Your task to perform on an android device: Clear all items from cart on costco.com. Search for "logitech g pro" on costco.com, select the first entry, add it to the cart, then select checkout. Image 0: 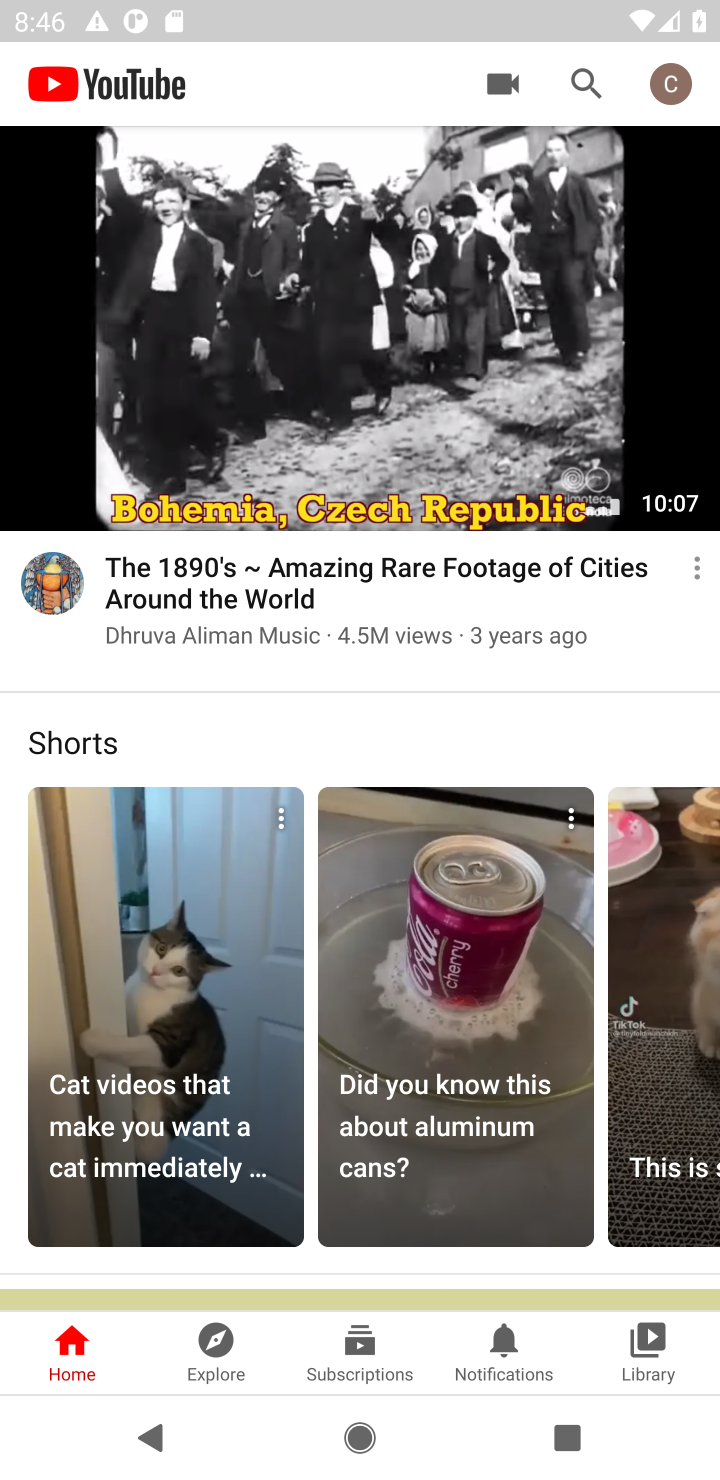
Step 0: press home button
Your task to perform on an android device: Clear all items from cart on costco.com. Search for "logitech g pro" on costco.com, select the first entry, add it to the cart, then select checkout. Image 1: 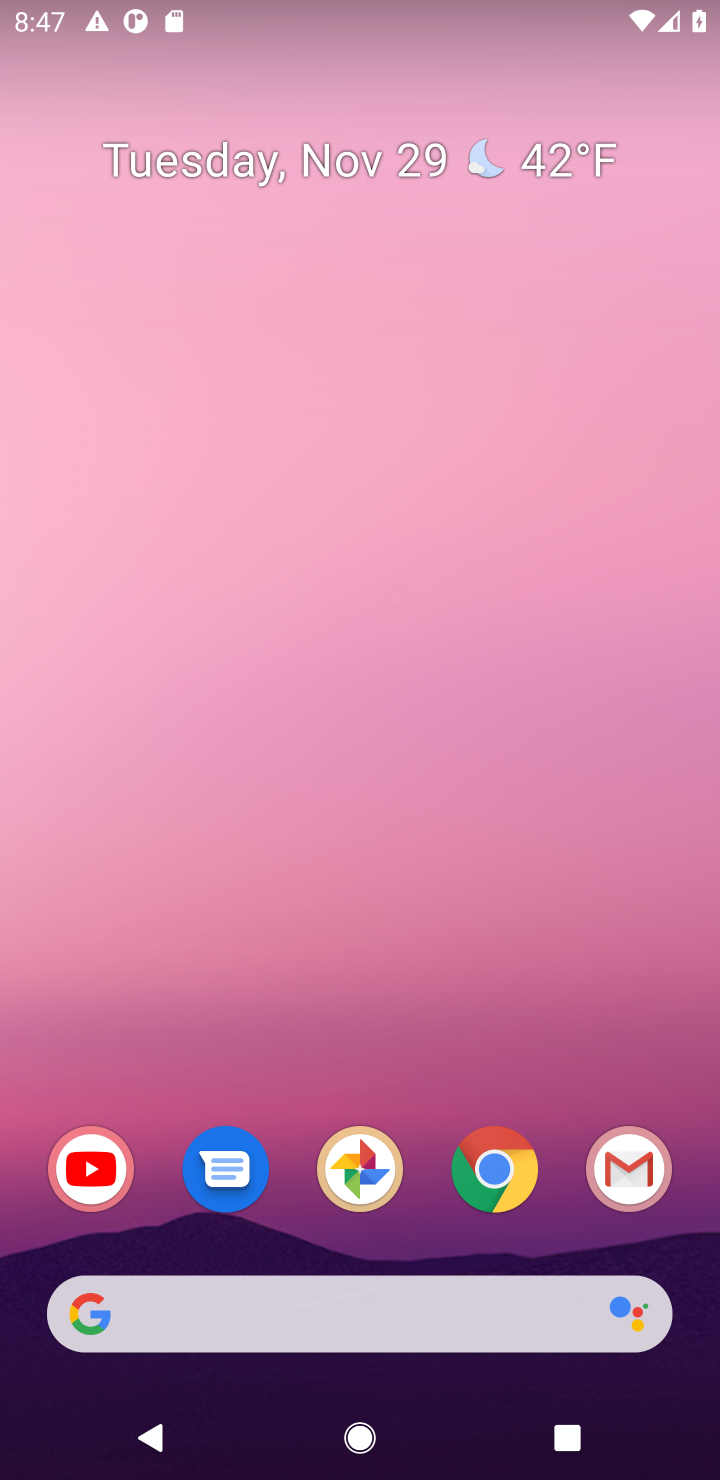
Step 1: click (378, 1329)
Your task to perform on an android device: Clear all items from cart on costco.com. Search for "logitech g pro" on costco.com, select the first entry, add it to the cart, then select checkout. Image 2: 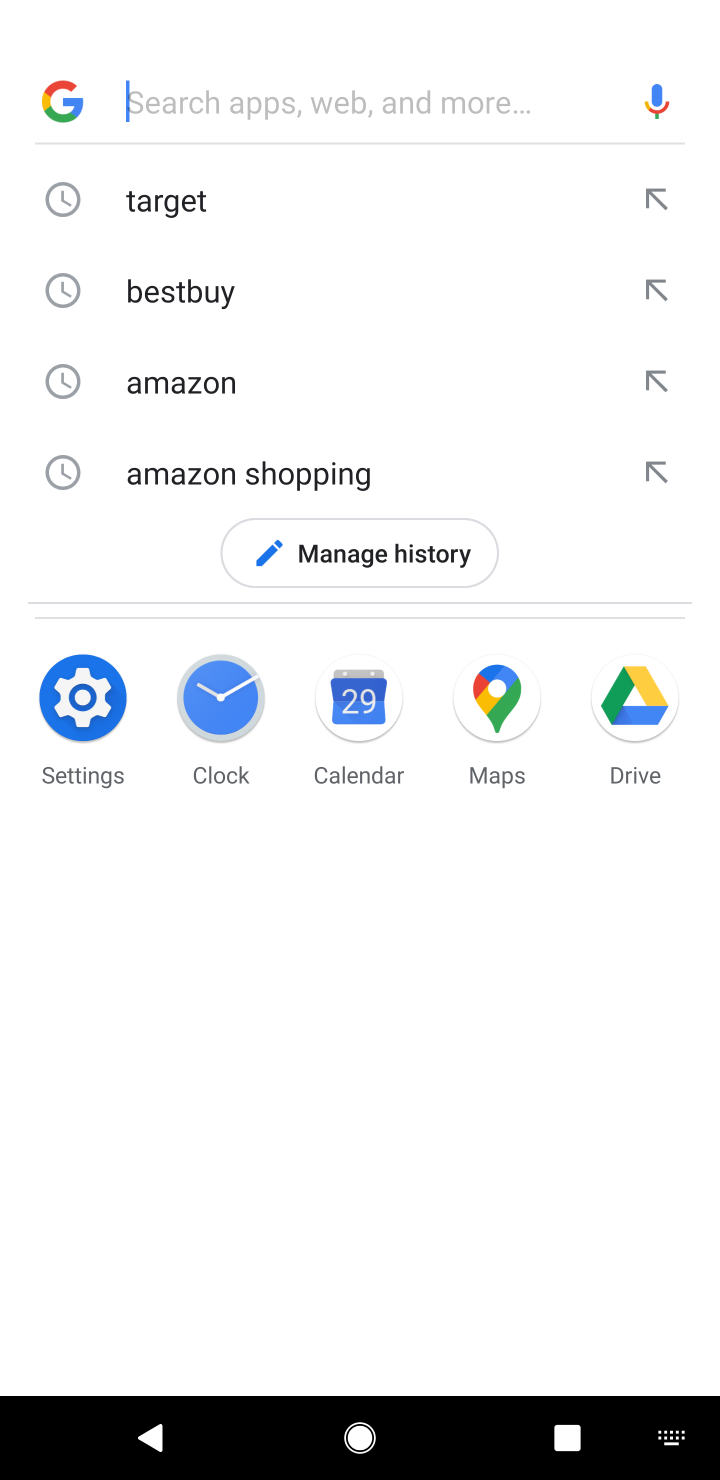
Step 2: type "costco.com"
Your task to perform on an android device: Clear all items from cart on costco.com. Search for "logitech g pro" on costco.com, select the first entry, add it to the cart, then select checkout. Image 3: 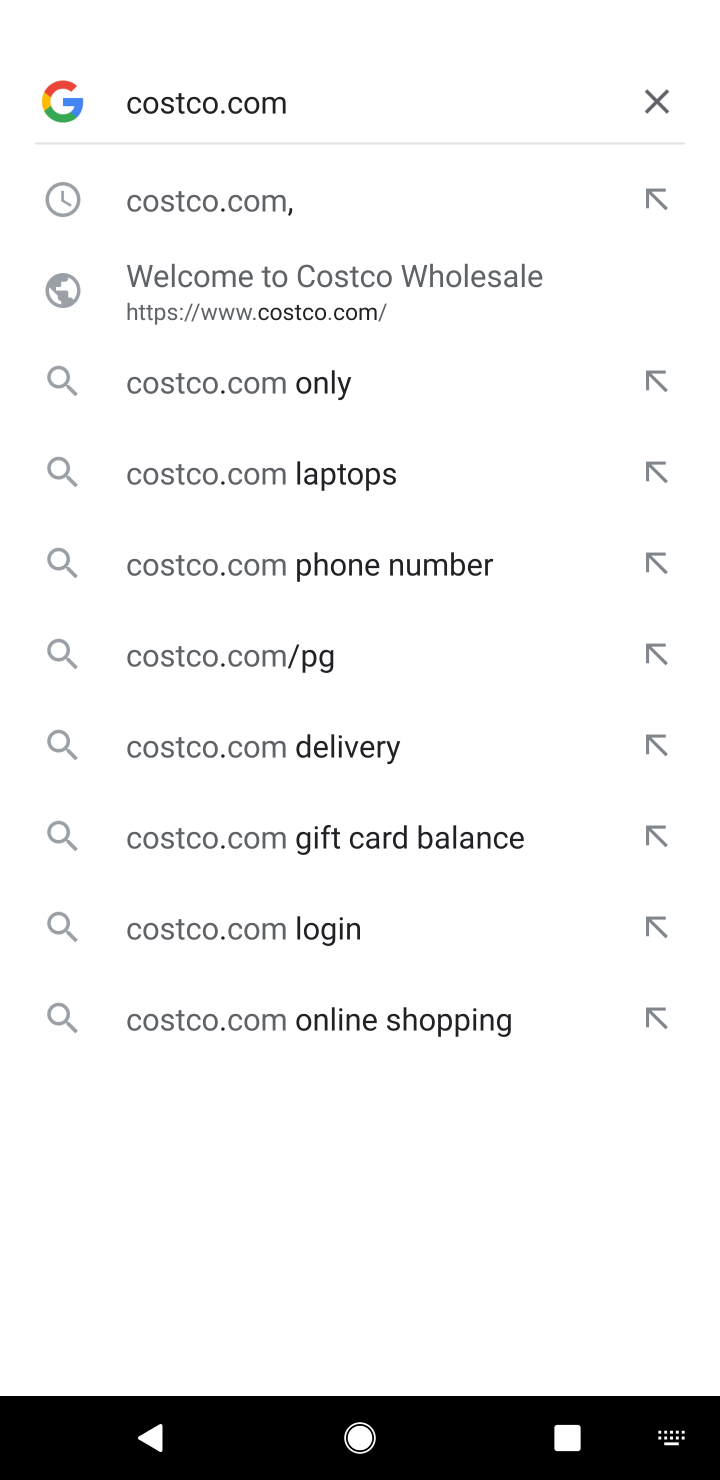
Step 3: click (375, 278)
Your task to perform on an android device: Clear all items from cart on costco.com. Search for "logitech g pro" on costco.com, select the first entry, add it to the cart, then select checkout. Image 4: 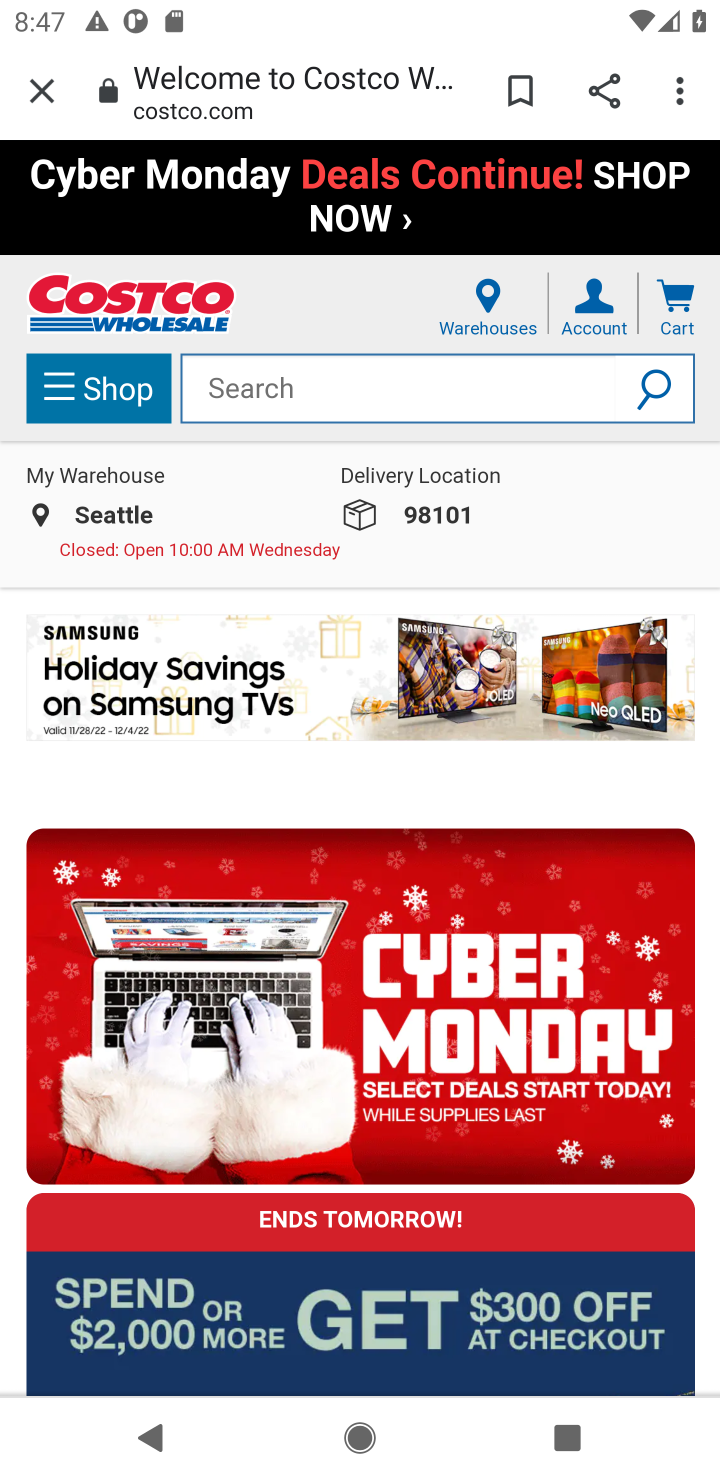
Step 4: click (222, 409)
Your task to perform on an android device: Clear all items from cart on costco.com. Search for "logitech g pro" on costco.com, select the first entry, add it to the cart, then select checkout. Image 5: 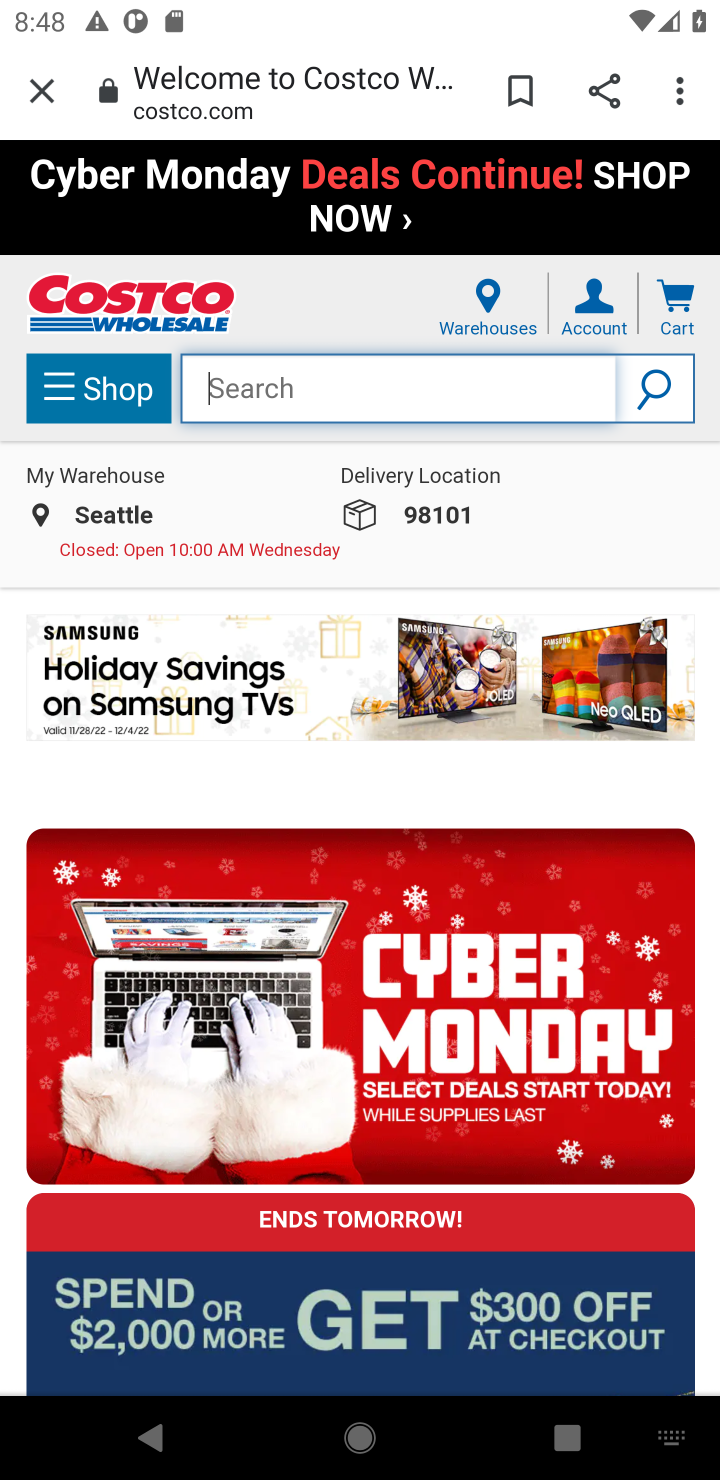
Step 5: type "logitech gpro"
Your task to perform on an android device: Clear all items from cart on costco.com. Search for "logitech g pro" on costco.com, select the first entry, add it to the cart, then select checkout. Image 6: 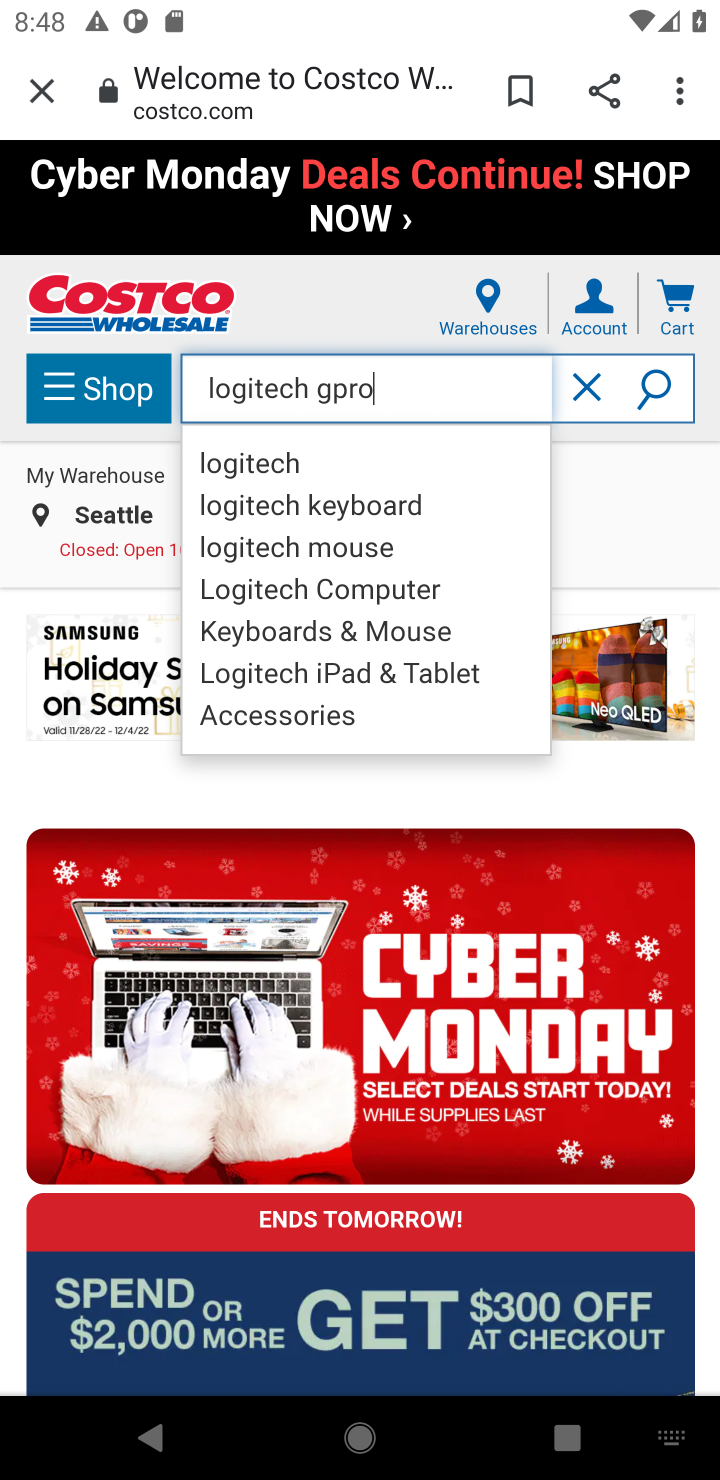
Step 6: click (650, 412)
Your task to perform on an android device: Clear all items from cart on costco.com. Search for "logitech g pro" on costco.com, select the first entry, add it to the cart, then select checkout. Image 7: 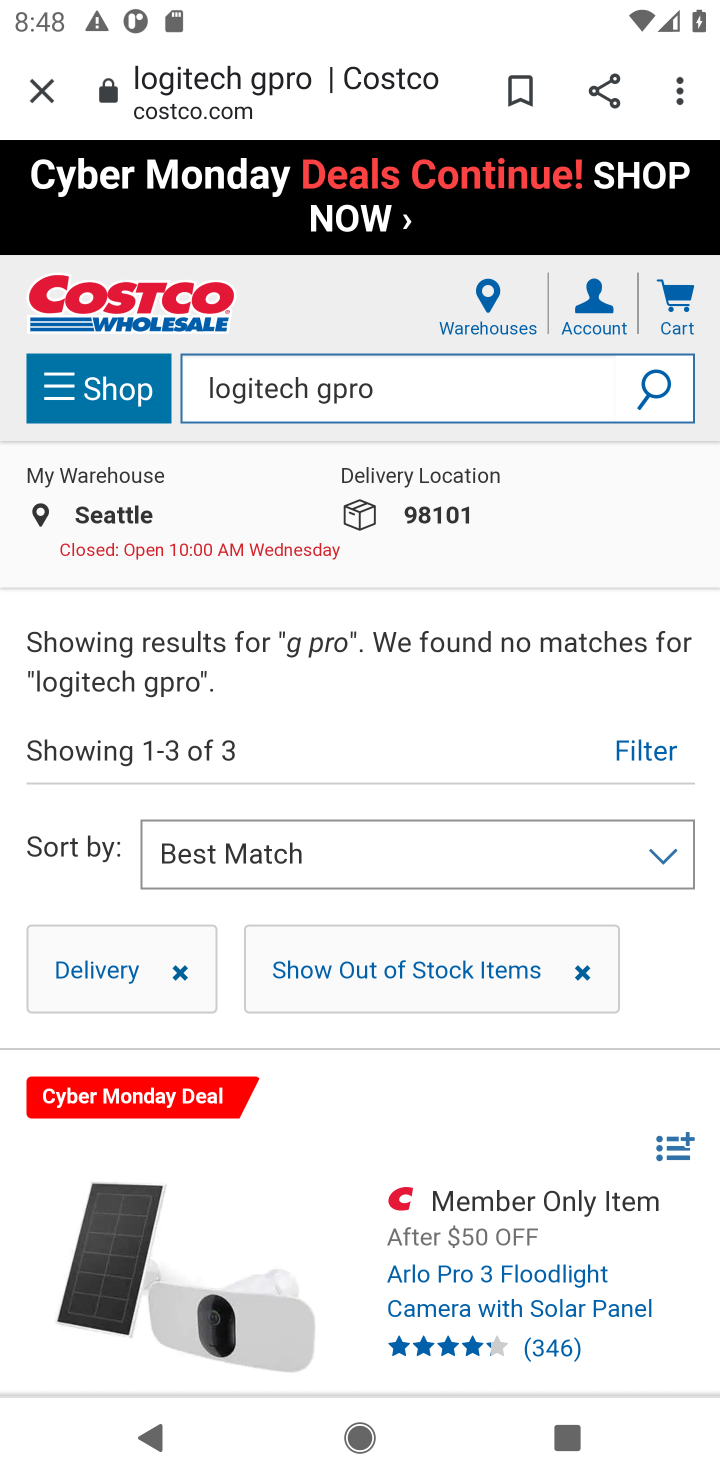
Step 7: click (525, 1264)
Your task to perform on an android device: Clear all items from cart on costco.com. Search for "logitech g pro" on costco.com, select the first entry, add it to the cart, then select checkout. Image 8: 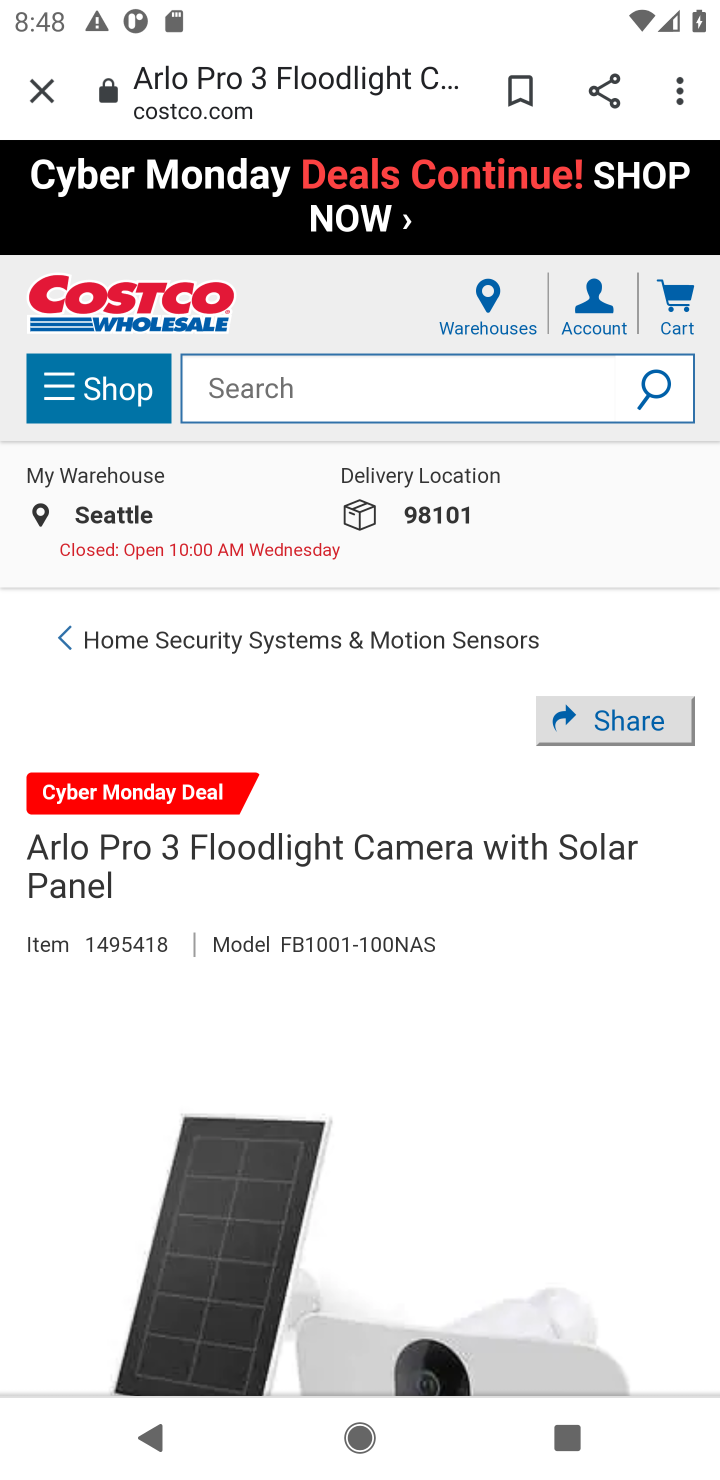
Step 8: task complete